Your task to perform on an android device: Set the phone to "Do not disturb". Image 0: 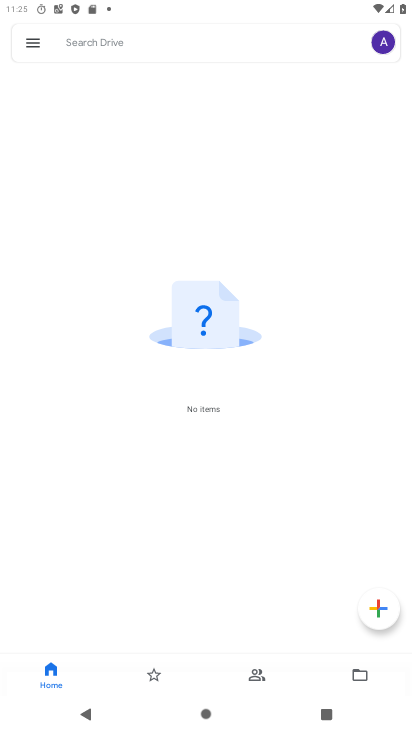
Step 0: press home button
Your task to perform on an android device: Set the phone to "Do not disturb". Image 1: 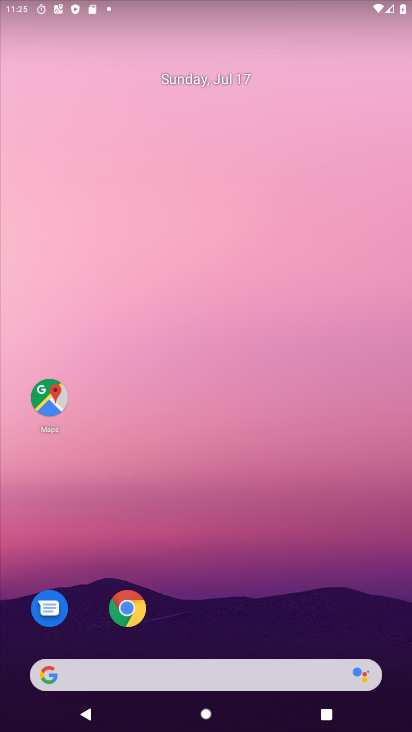
Step 1: drag from (336, 630) to (338, 2)
Your task to perform on an android device: Set the phone to "Do not disturb". Image 2: 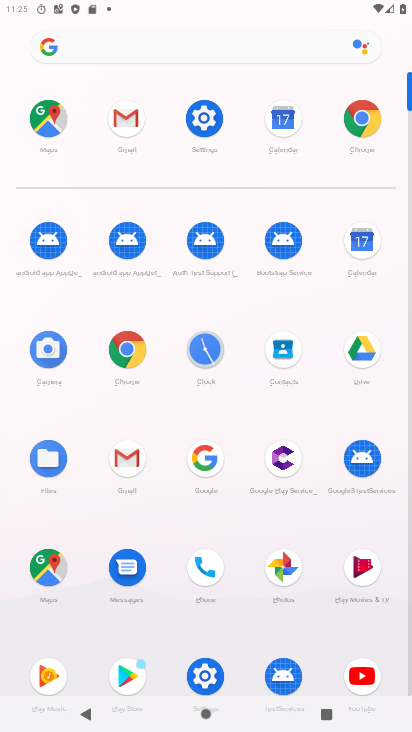
Step 2: click (204, 120)
Your task to perform on an android device: Set the phone to "Do not disturb". Image 3: 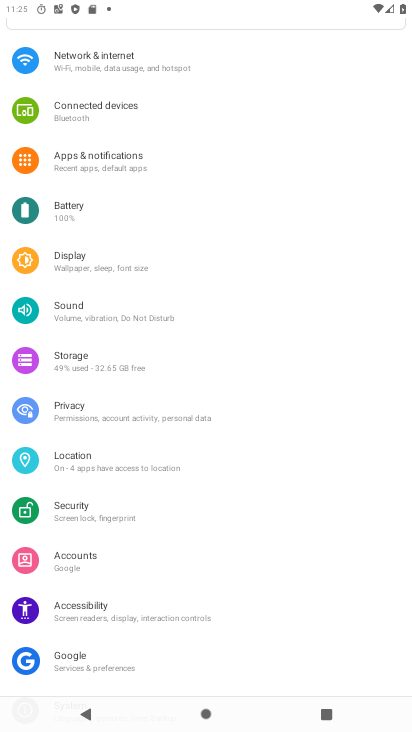
Step 3: click (130, 313)
Your task to perform on an android device: Set the phone to "Do not disturb". Image 4: 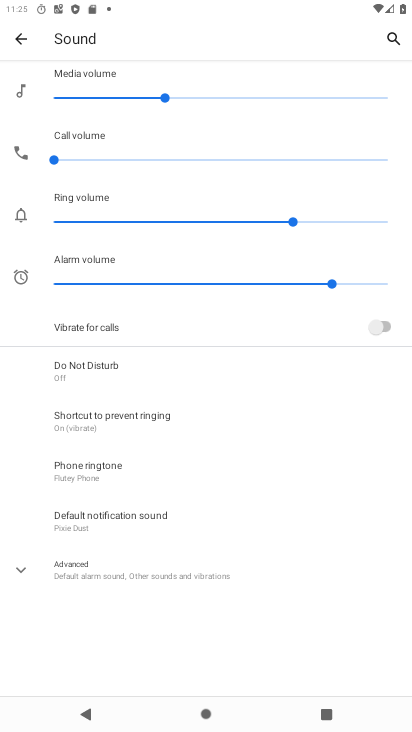
Step 4: click (86, 380)
Your task to perform on an android device: Set the phone to "Do not disturb". Image 5: 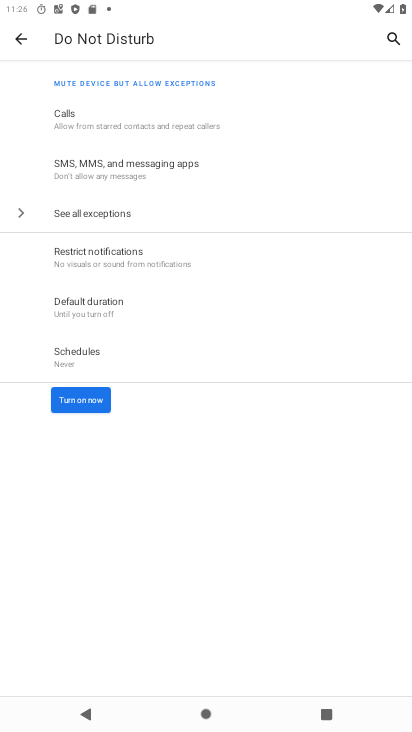
Step 5: click (88, 395)
Your task to perform on an android device: Set the phone to "Do not disturb". Image 6: 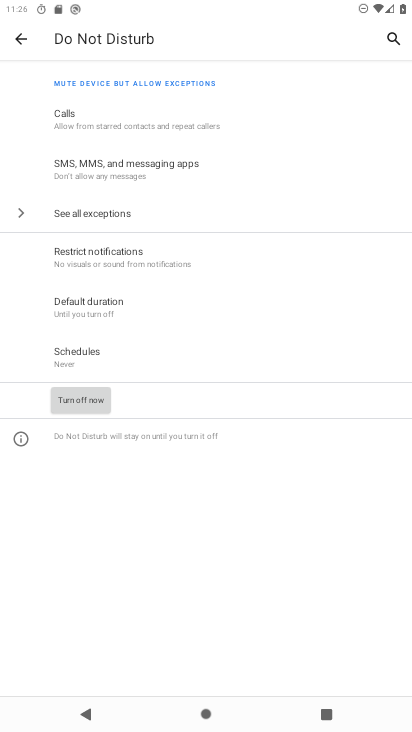
Step 6: task complete